Your task to perform on an android device: Is it going to rain tomorrow? Image 0: 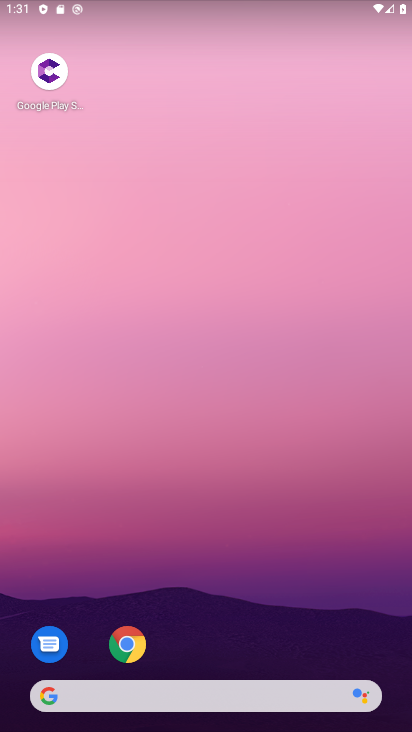
Step 0: click (246, 697)
Your task to perform on an android device: Is it going to rain tomorrow? Image 1: 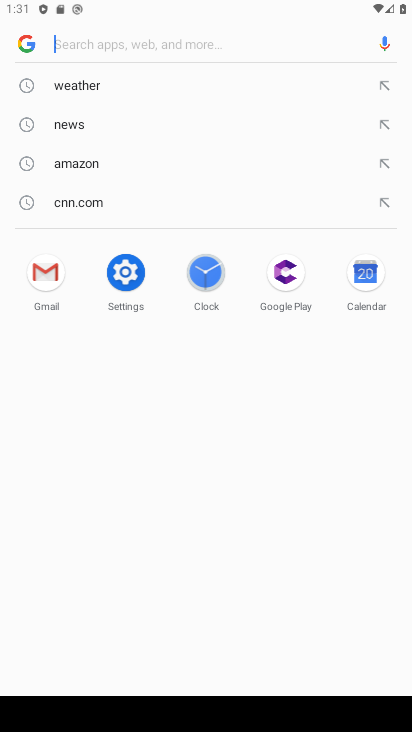
Step 1: type "is it going to rain tomorrow"
Your task to perform on an android device: Is it going to rain tomorrow? Image 2: 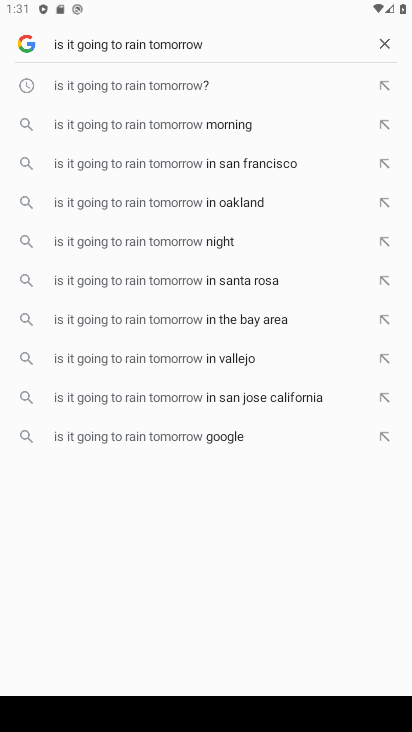
Step 2: click (93, 78)
Your task to perform on an android device: Is it going to rain tomorrow? Image 3: 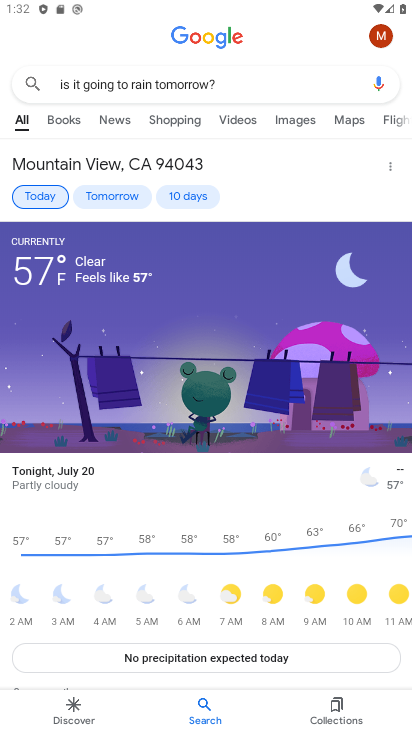
Step 3: click (122, 190)
Your task to perform on an android device: Is it going to rain tomorrow? Image 4: 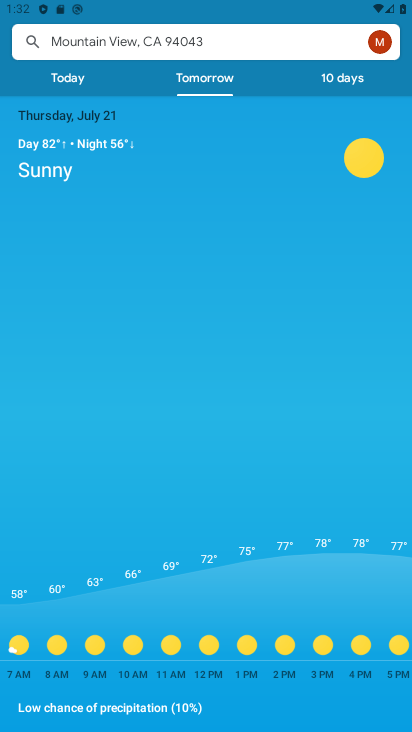
Step 4: task complete